Your task to perform on an android device: Open eBay Image 0: 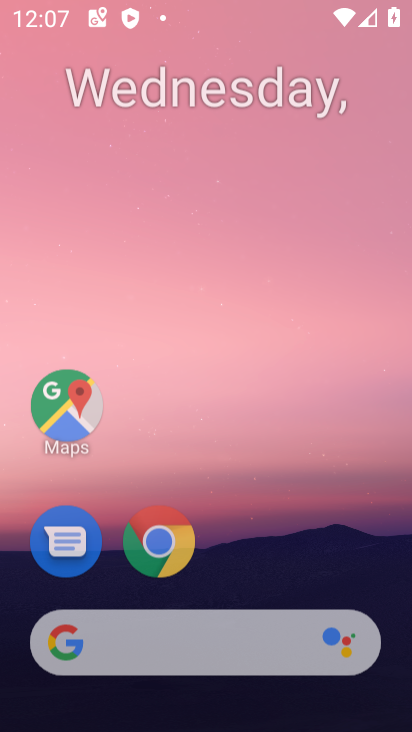
Step 0: press back button
Your task to perform on an android device: Open eBay Image 1: 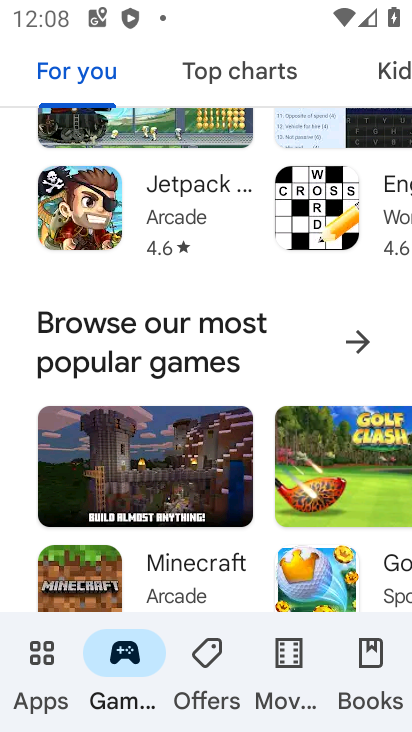
Step 1: press back button
Your task to perform on an android device: Open eBay Image 2: 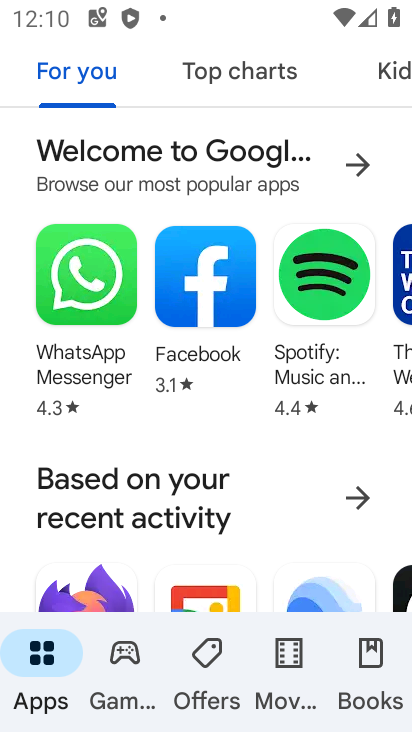
Step 2: press back button
Your task to perform on an android device: Open eBay Image 3: 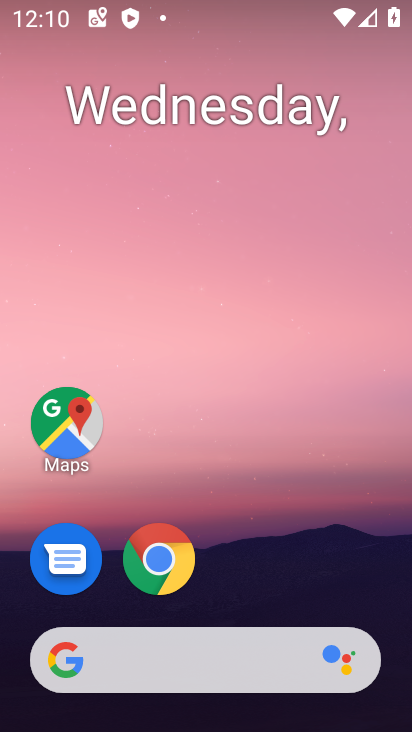
Step 3: click (165, 559)
Your task to perform on an android device: Open eBay Image 4: 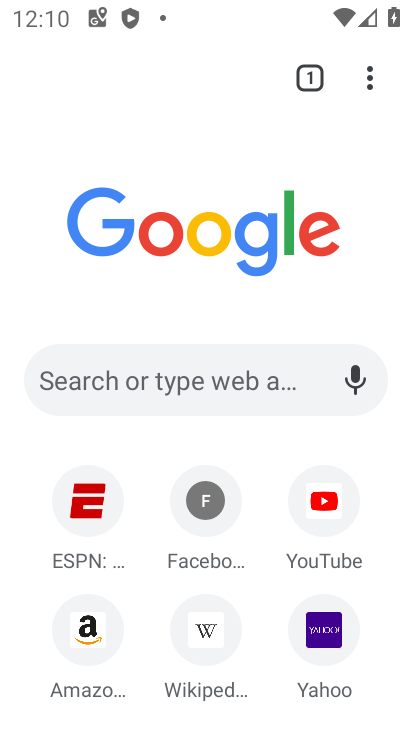
Step 4: drag from (197, 631) to (228, 357)
Your task to perform on an android device: Open eBay Image 5: 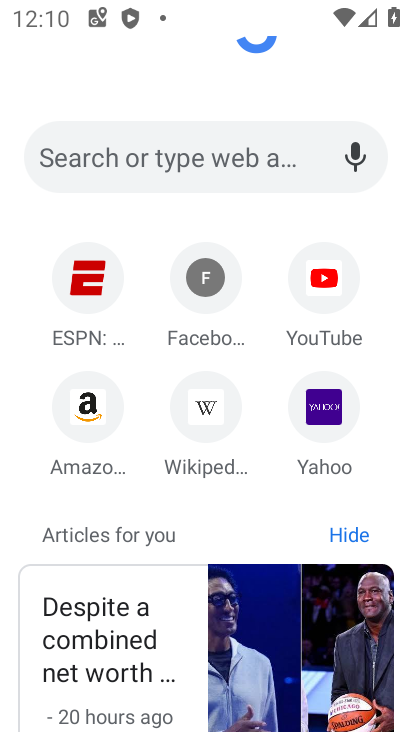
Step 5: click (181, 152)
Your task to perform on an android device: Open eBay Image 6: 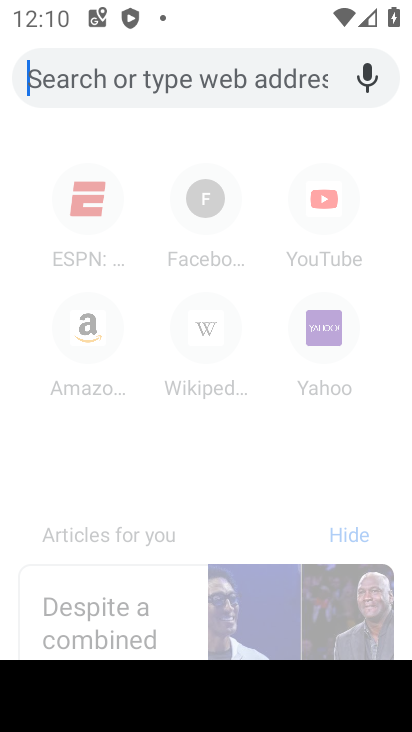
Step 6: type "ebay"
Your task to perform on an android device: Open eBay Image 7: 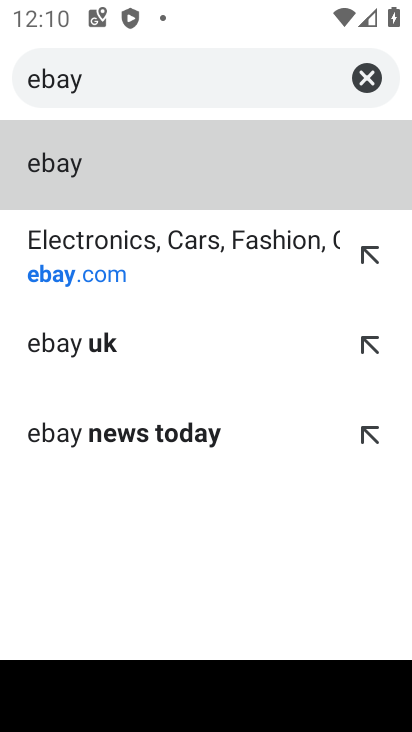
Step 7: click (126, 254)
Your task to perform on an android device: Open eBay Image 8: 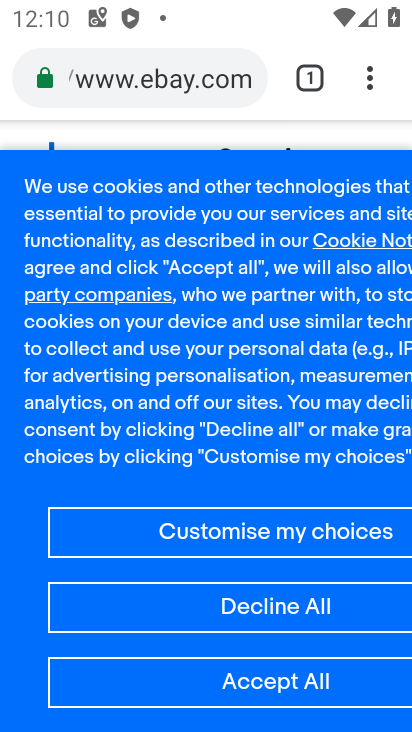
Step 8: task complete